Your task to perform on an android device: find which apps use the phone's location Image 0: 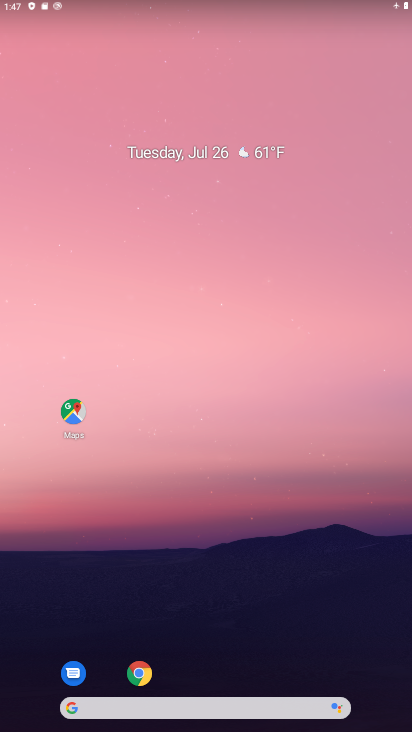
Step 0: drag from (172, 609) to (258, 96)
Your task to perform on an android device: find which apps use the phone's location Image 1: 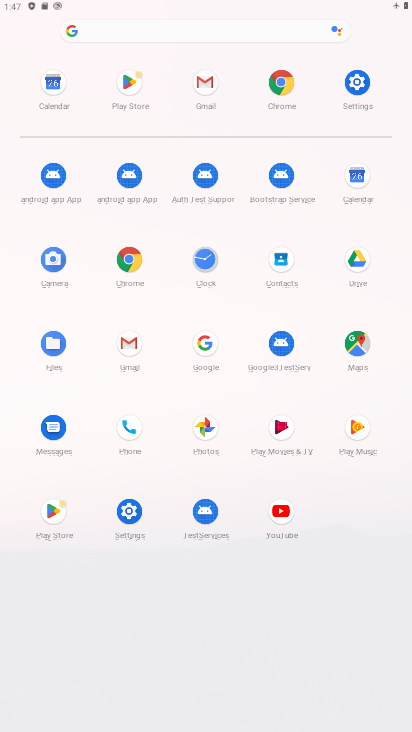
Step 1: click (120, 257)
Your task to perform on an android device: find which apps use the phone's location Image 2: 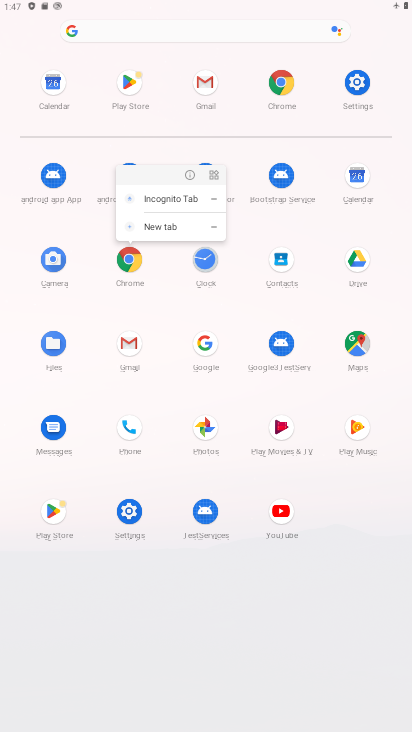
Step 2: click (188, 169)
Your task to perform on an android device: find which apps use the phone's location Image 3: 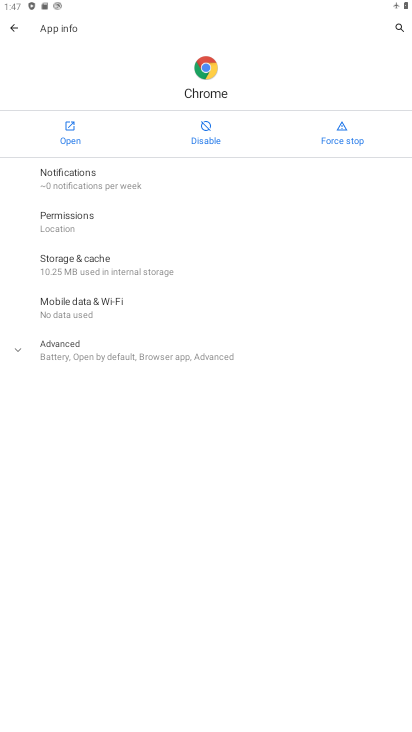
Step 3: press home button
Your task to perform on an android device: find which apps use the phone's location Image 4: 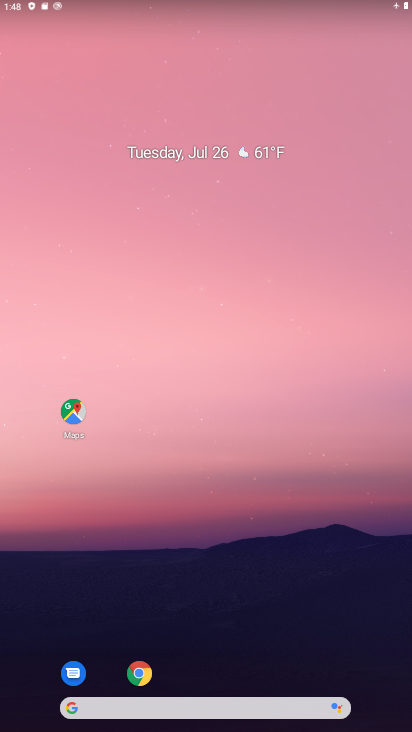
Step 4: drag from (203, 635) to (276, 156)
Your task to perform on an android device: find which apps use the phone's location Image 5: 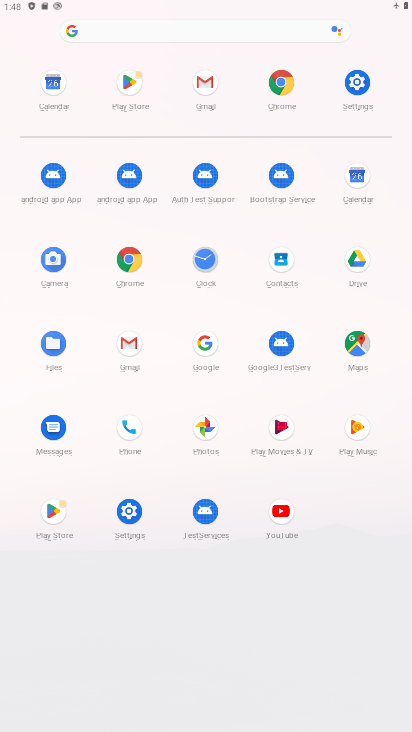
Step 5: click (126, 514)
Your task to perform on an android device: find which apps use the phone's location Image 6: 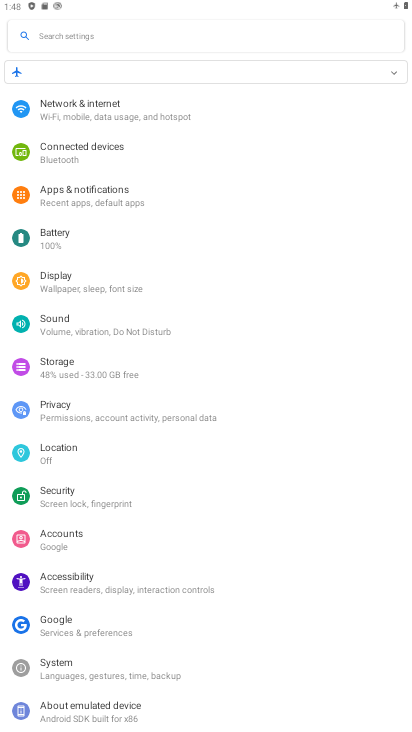
Step 6: click (72, 453)
Your task to perform on an android device: find which apps use the phone's location Image 7: 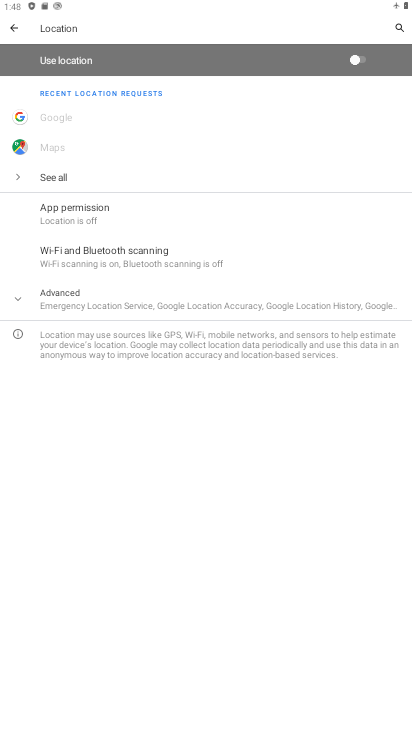
Step 7: click (80, 293)
Your task to perform on an android device: find which apps use the phone's location Image 8: 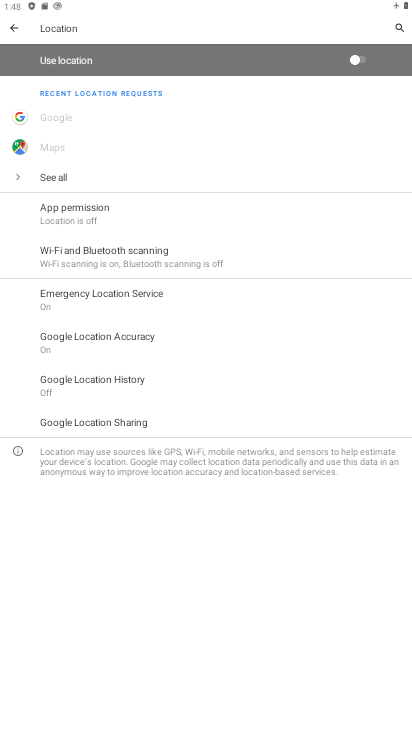
Step 8: drag from (215, 546) to (243, 322)
Your task to perform on an android device: find which apps use the phone's location Image 9: 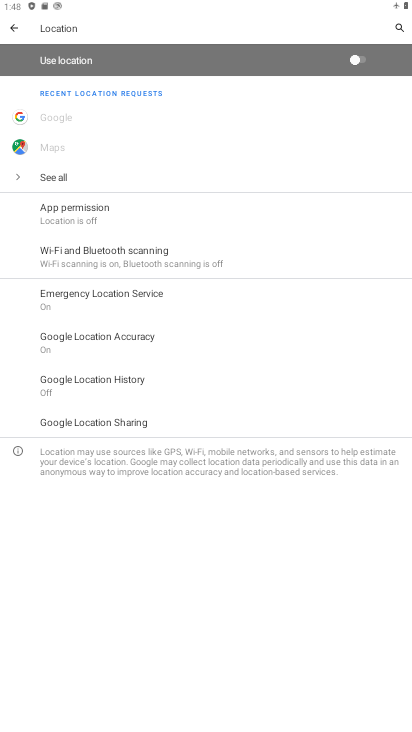
Step 9: click (94, 206)
Your task to perform on an android device: find which apps use the phone's location Image 10: 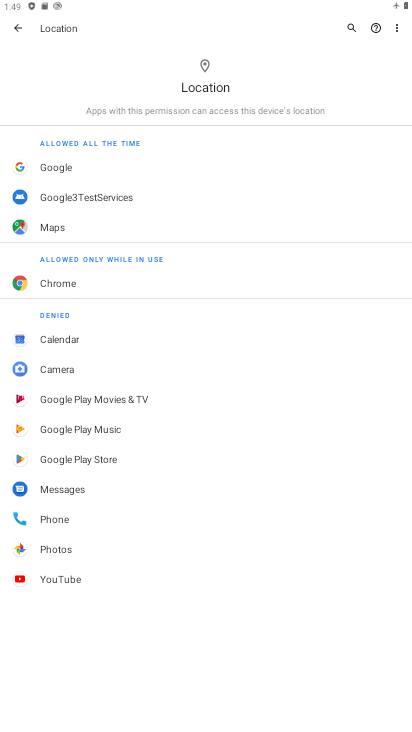
Step 10: task complete